Your task to perform on an android device: Go to wifi settings Image 0: 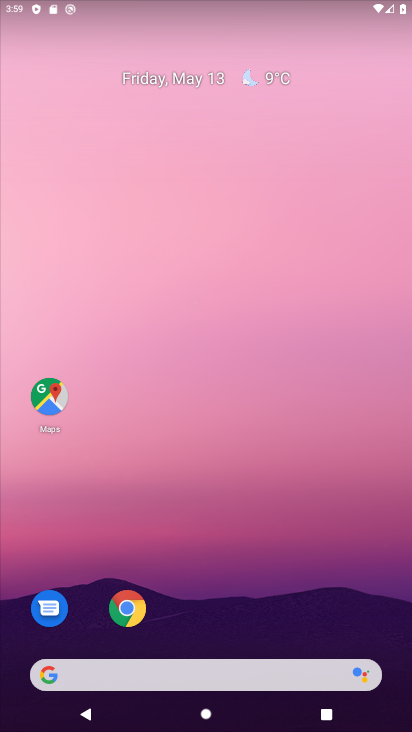
Step 0: drag from (234, 231) to (203, 80)
Your task to perform on an android device: Go to wifi settings Image 1: 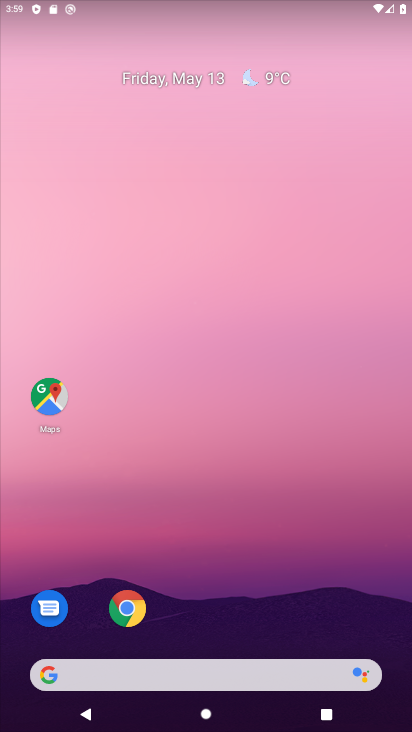
Step 1: drag from (262, 277) to (234, 18)
Your task to perform on an android device: Go to wifi settings Image 2: 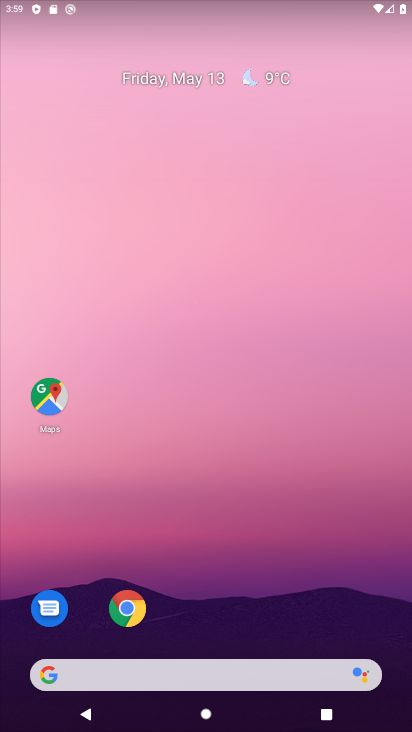
Step 2: drag from (196, 551) to (196, 10)
Your task to perform on an android device: Go to wifi settings Image 3: 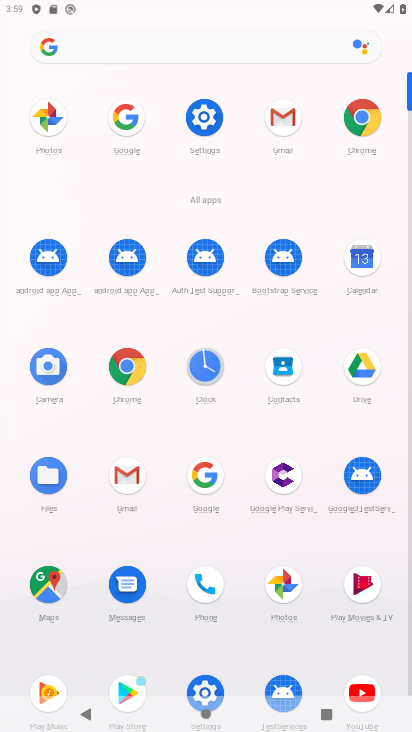
Step 3: click (210, 184)
Your task to perform on an android device: Go to wifi settings Image 4: 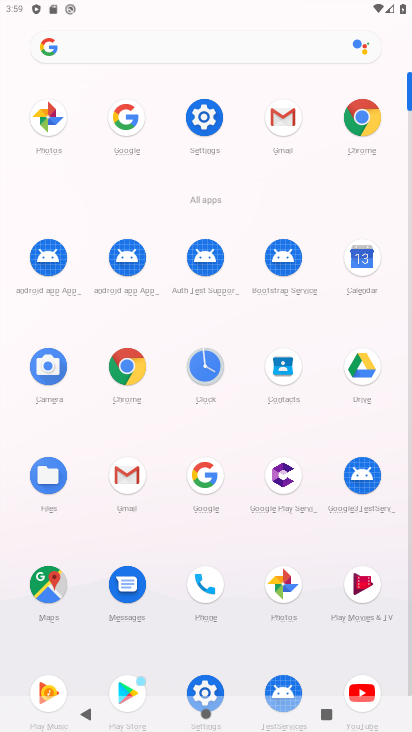
Step 4: click (195, 119)
Your task to perform on an android device: Go to wifi settings Image 5: 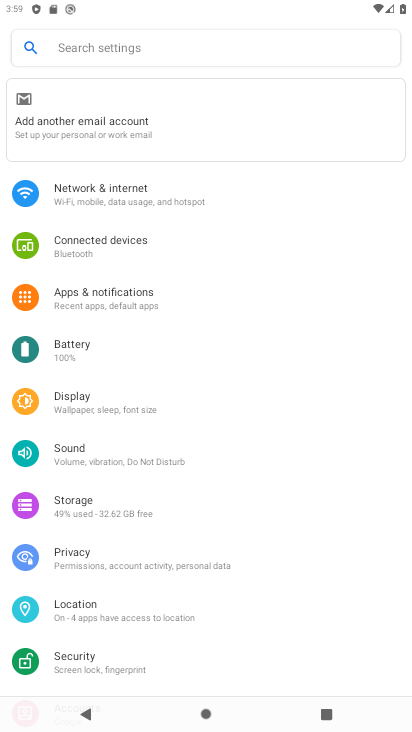
Step 5: click (122, 177)
Your task to perform on an android device: Go to wifi settings Image 6: 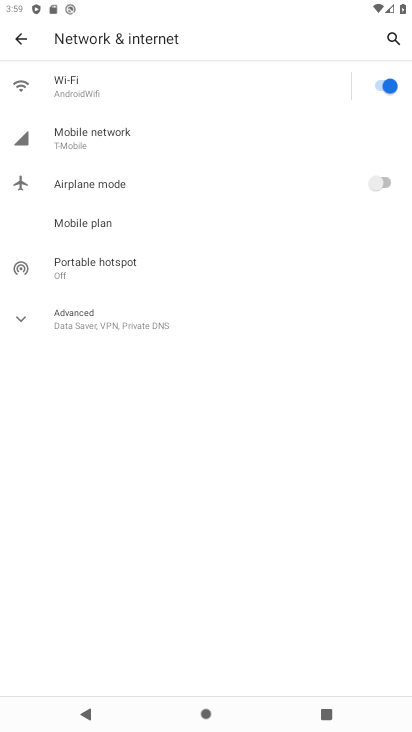
Step 6: click (148, 81)
Your task to perform on an android device: Go to wifi settings Image 7: 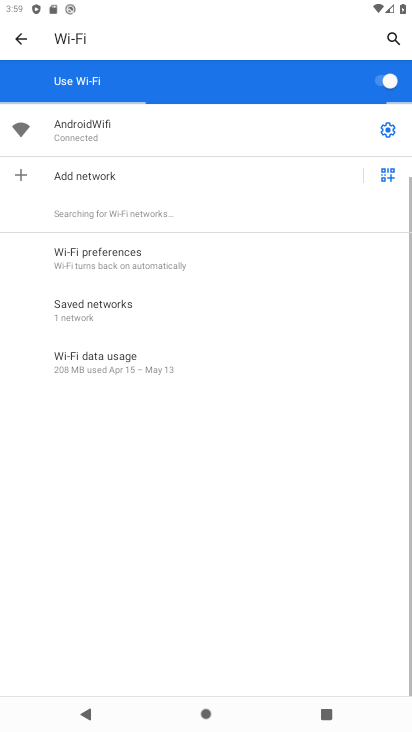
Step 7: task complete